Your task to perform on an android device: clear history in the chrome app Image 0: 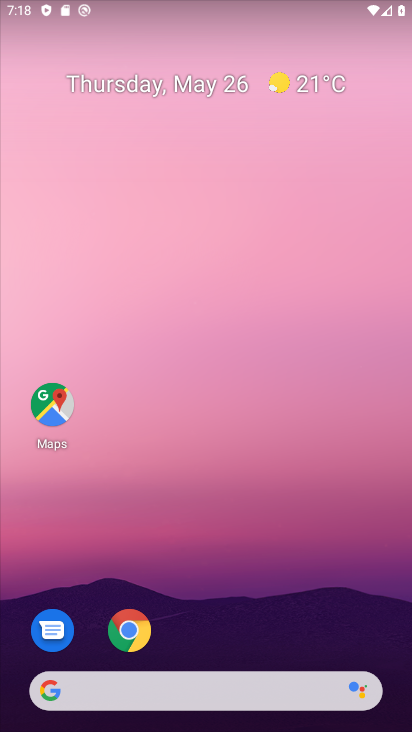
Step 0: click (126, 629)
Your task to perform on an android device: clear history in the chrome app Image 1: 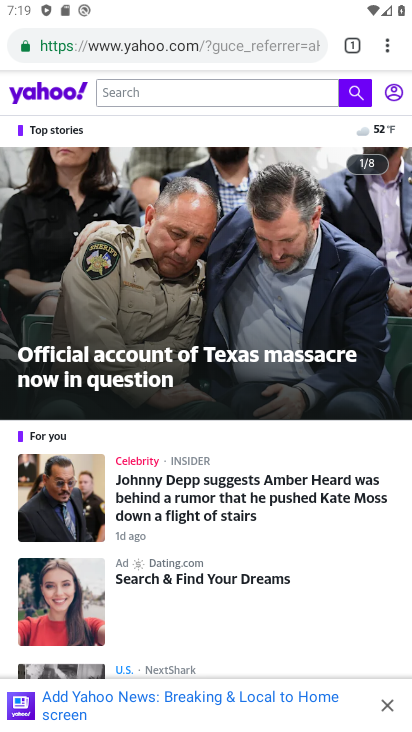
Step 1: click (388, 45)
Your task to perform on an android device: clear history in the chrome app Image 2: 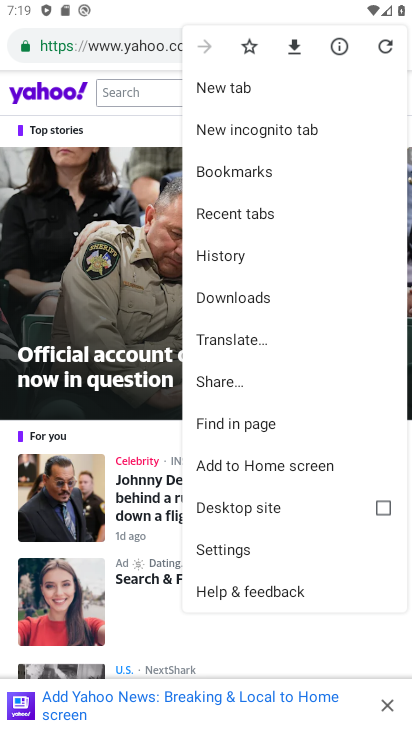
Step 2: click (239, 257)
Your task to perform on an android device: clear history in the chrome app Image 3: 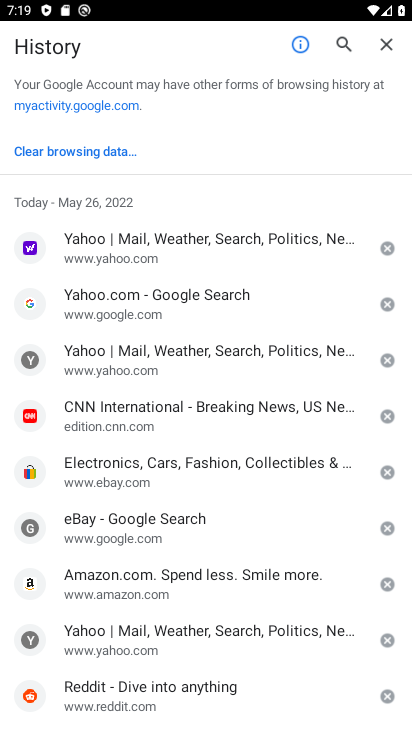
Step 3: click (118, 152)
Your task to perform on an android device: clear history in the chrome app Image 4: 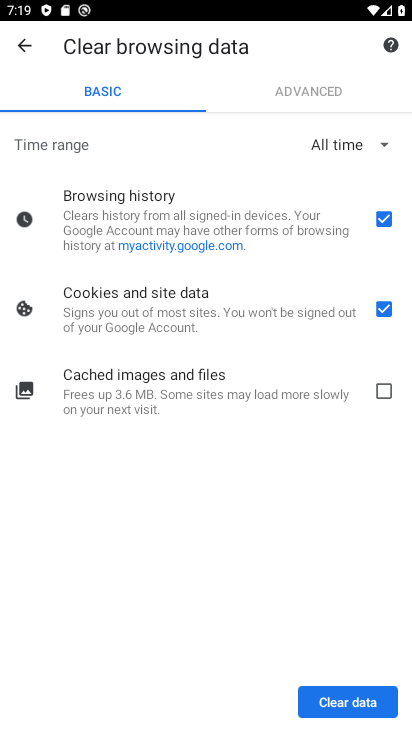
Step 4: click (384, 387)
Your task to perform on an android device: clear history in the chrome app Image 5: 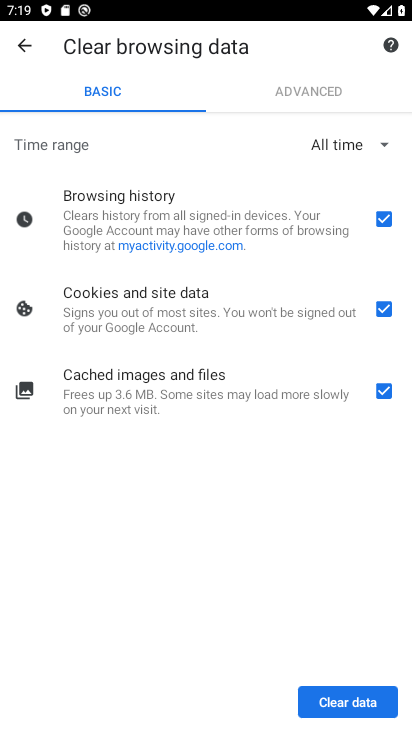
Step 5: click (358, 699)
Your task to perform on an android device: clear history in the chrome app Image 6: 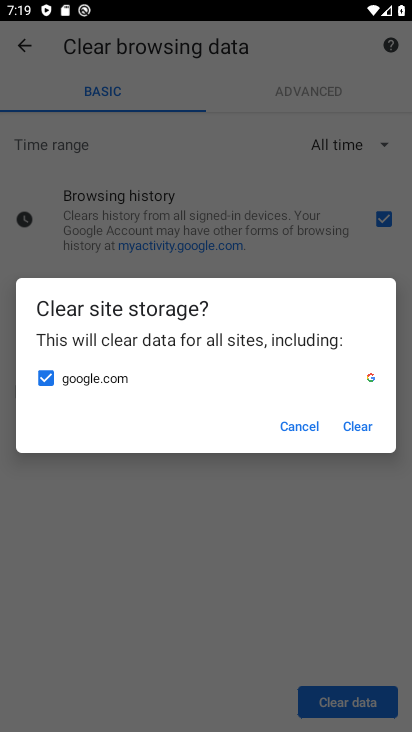
Step 6: click (367, 428)
Your task to perform on an android device: clear history in the chrome app Image 7: 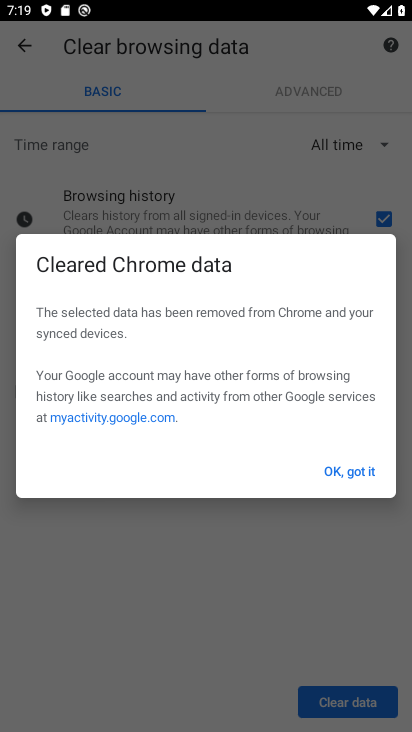
Step 7: click (355, 474)
Your task to perform on an android device: clear history in the chrome app Image 8: 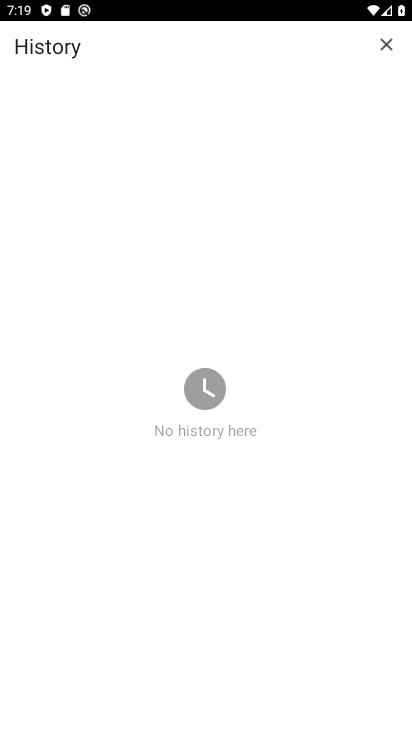
Step 8: task complete